Your task to perform on an android device: turn on airplane mode Image 0: 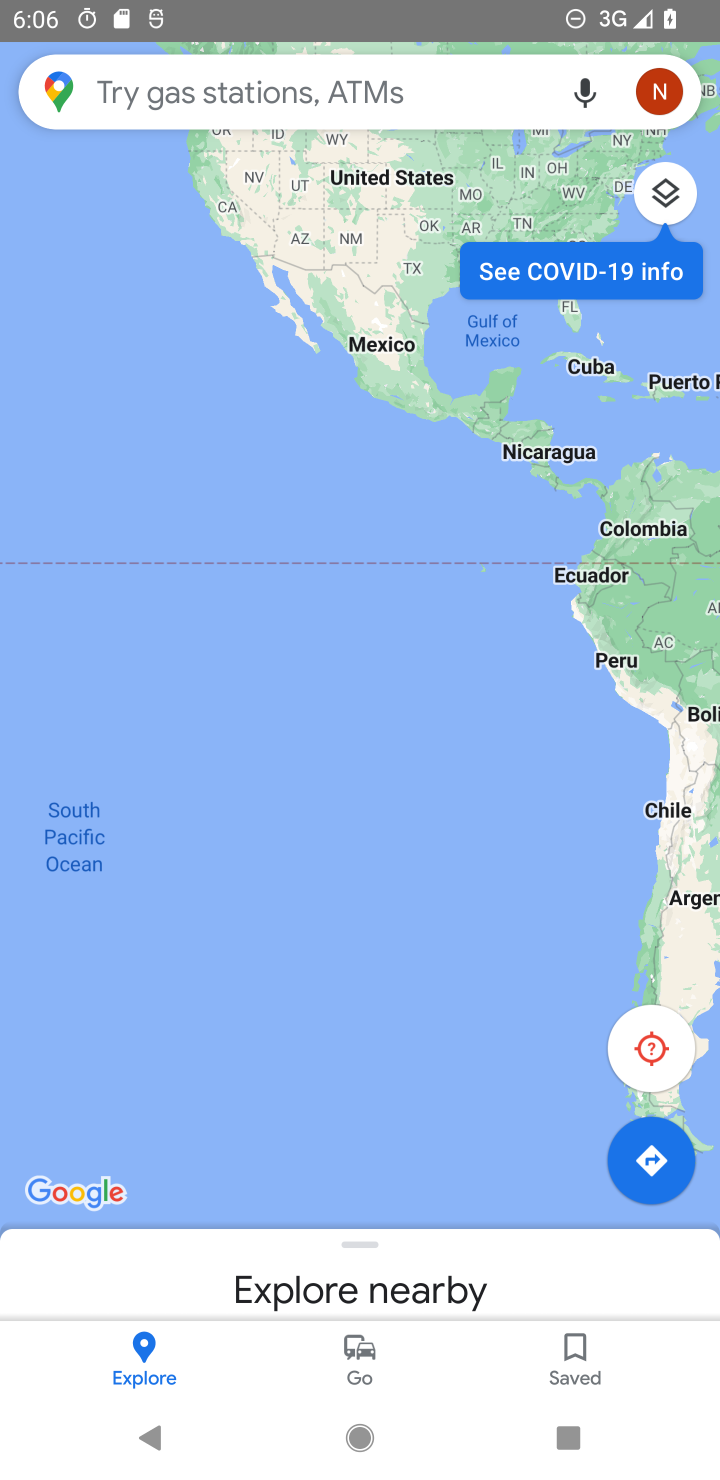
Step 0: drag from (421, 1174) to (563, 297)
Your task to perform on an android device: turn on airplane mode Image 1: 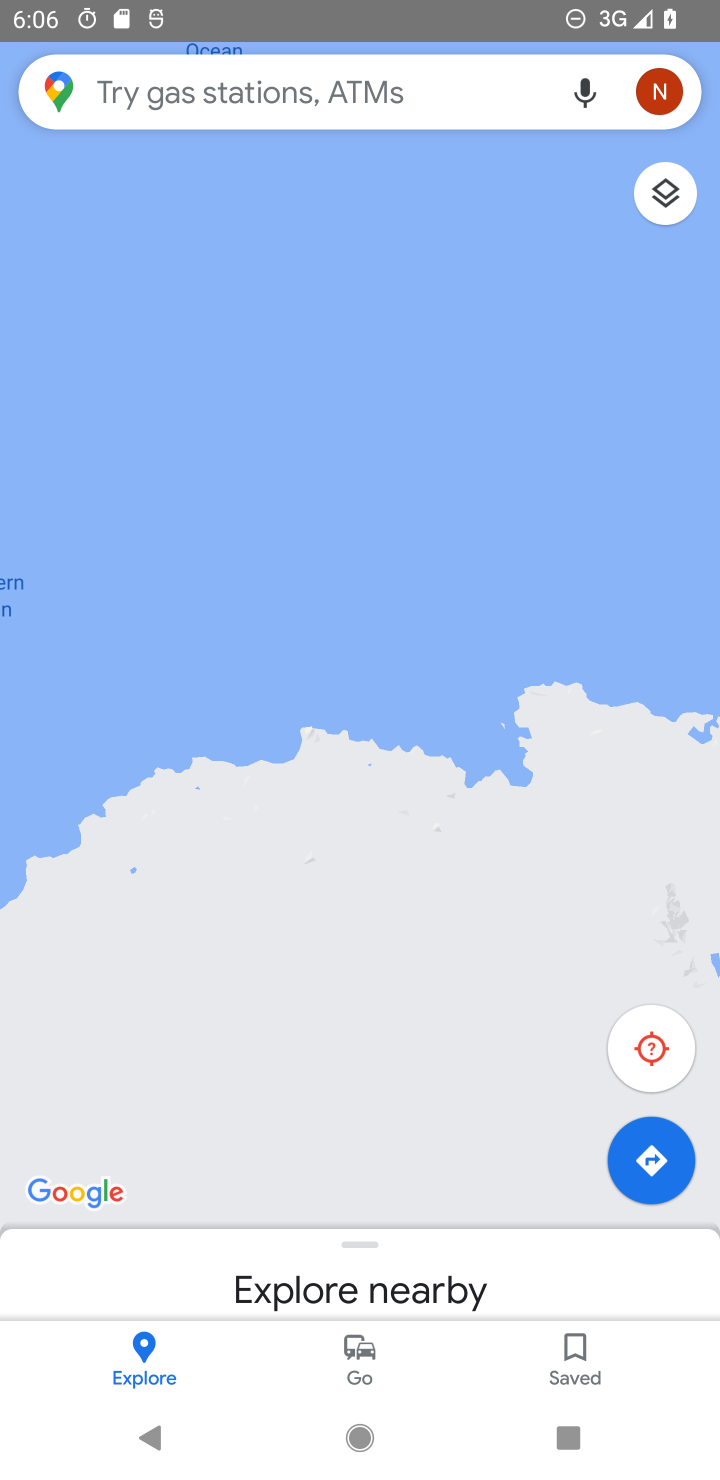
Step 1: press home button
Your task to perform on an android device: turn on airplane mode Image 2: 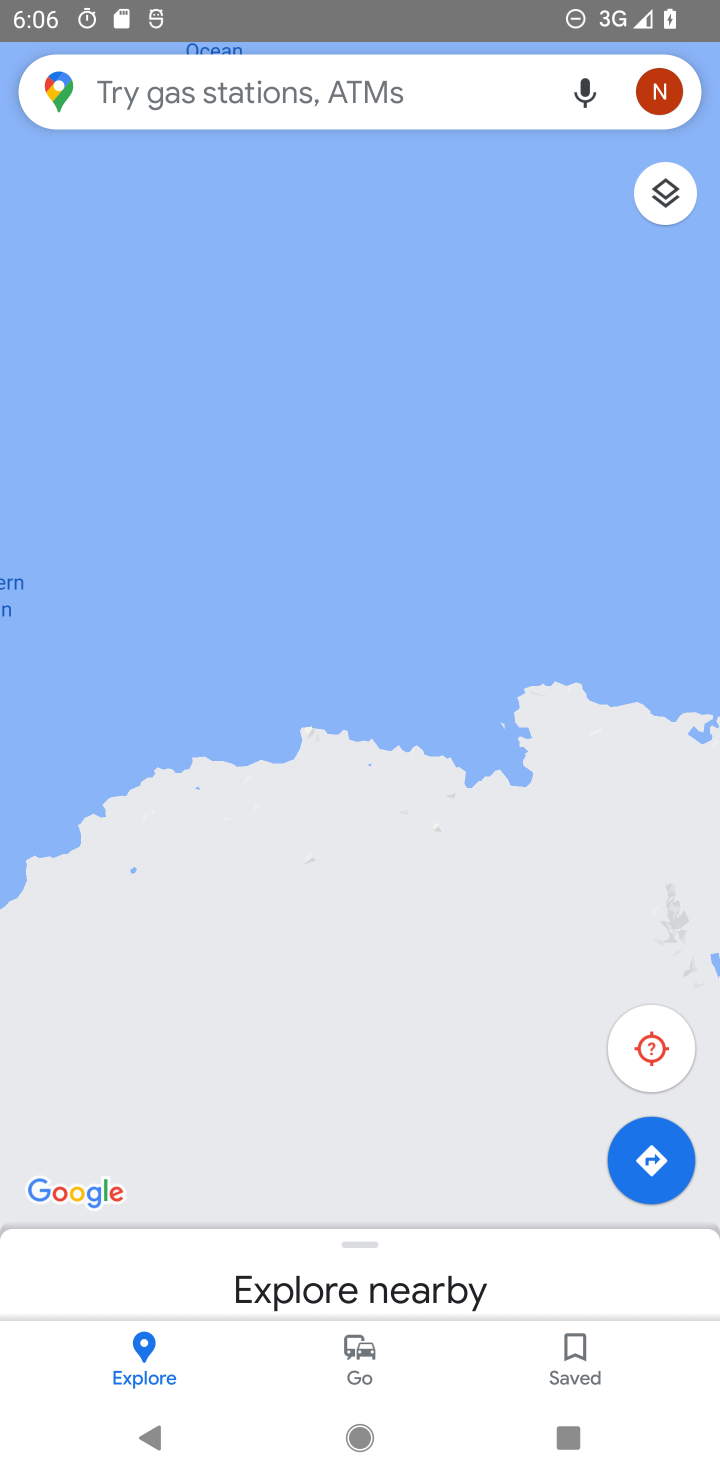
Step 2: drag from (459, 1101) to (558, 74)
Your task to perform on an android device: turn on airplane mode Image 3: 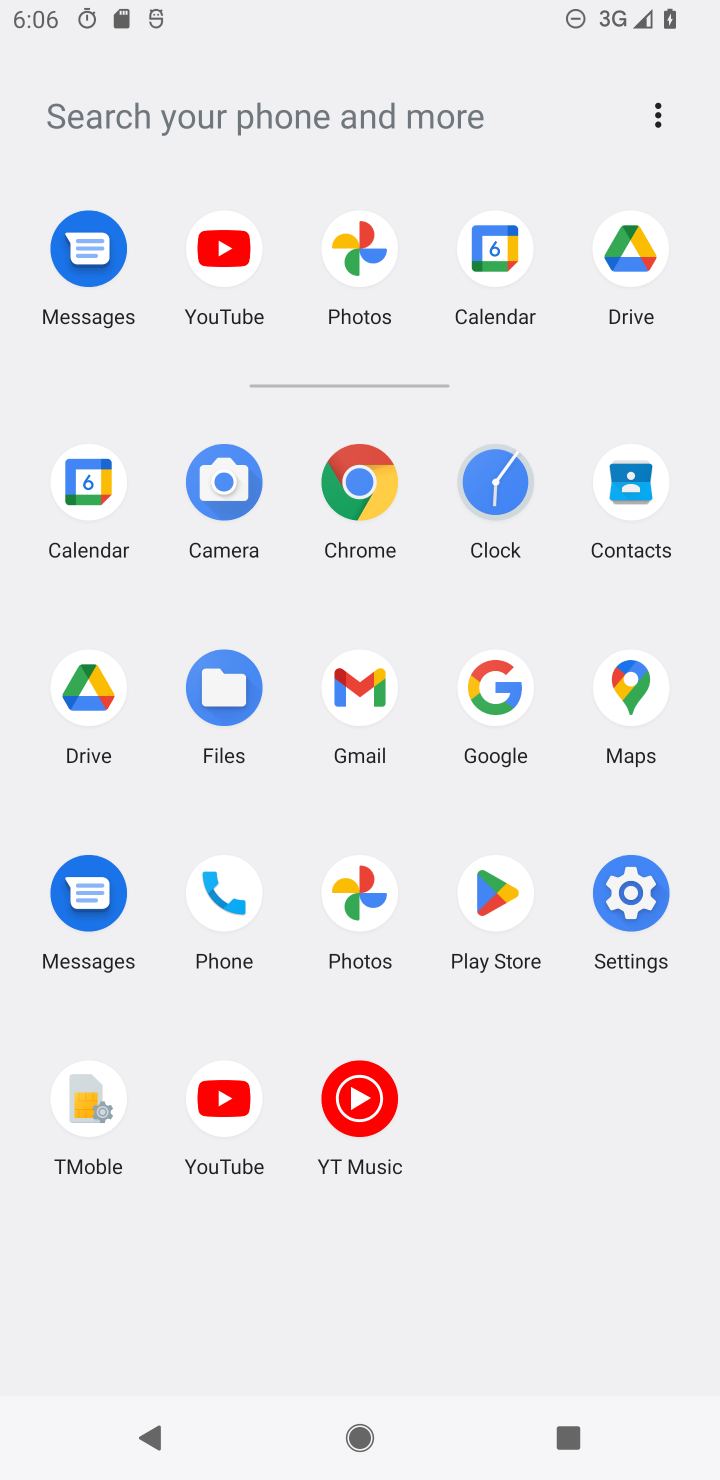
Step 3: click (302, 92)
Your task to perform on an android device: turn on airplane mode Image 4: 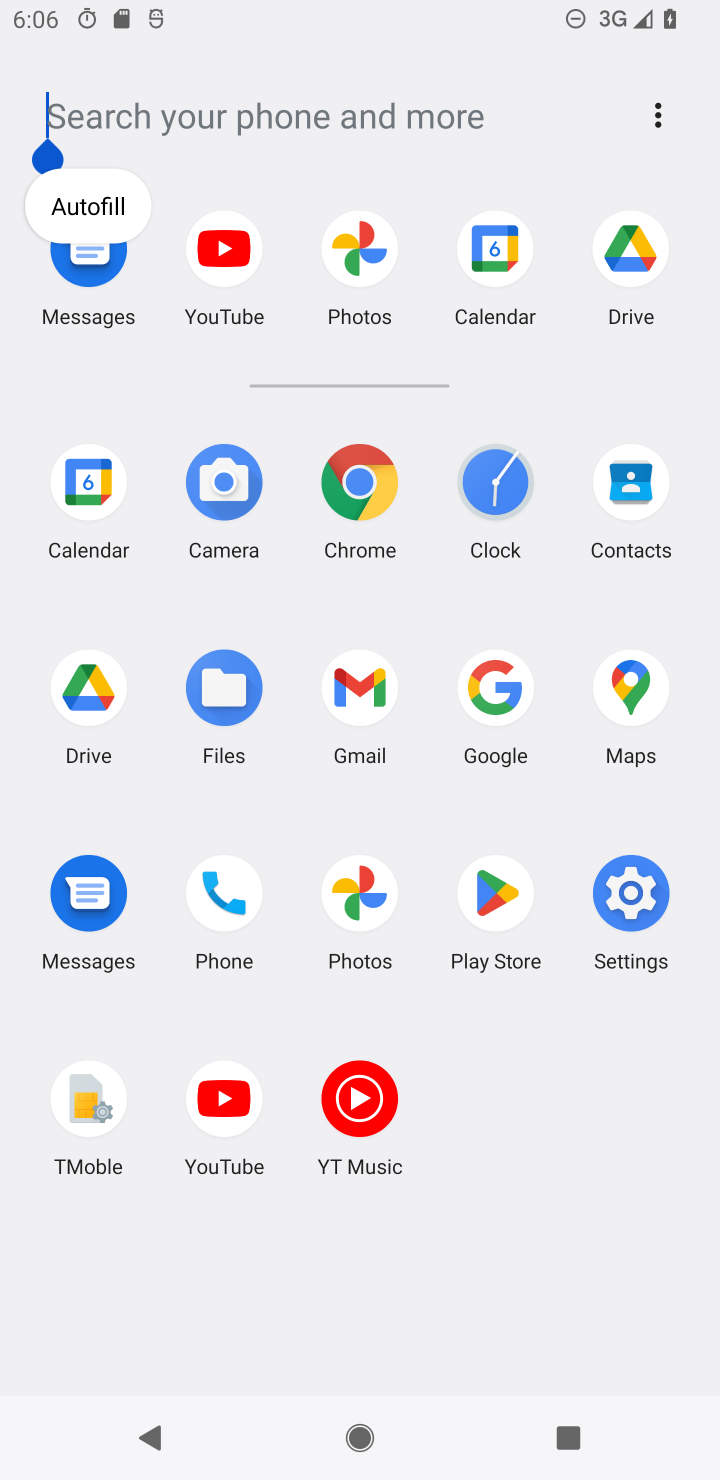
Step 4: click (667, 1472)
Your task to perform on an android device: turn on airplane mode Image 5: 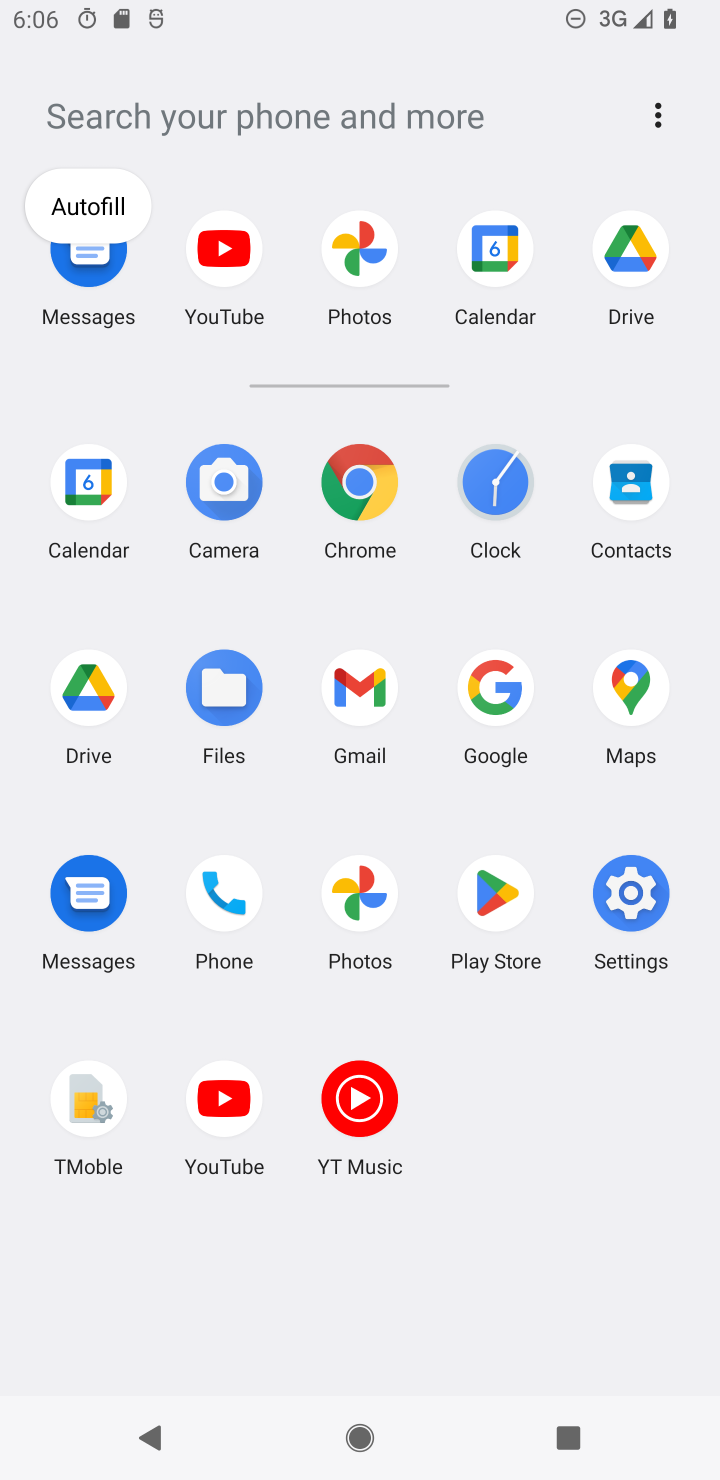
Step 5: type "airplane mode"
Your task to perform on an android device: turn on airplane mode Image 6: 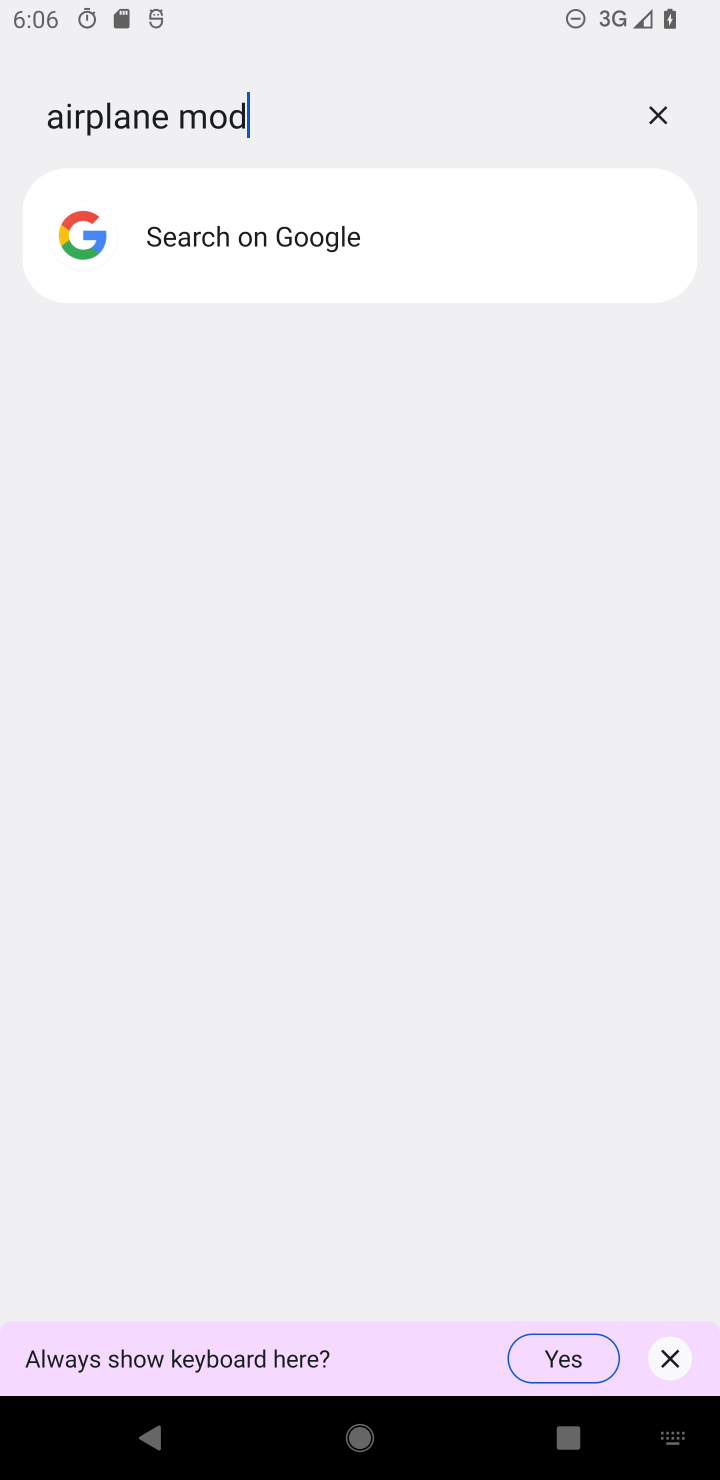
Step 6: type ""
Your task to perform on an android device: turn on airplane mode Image 7: 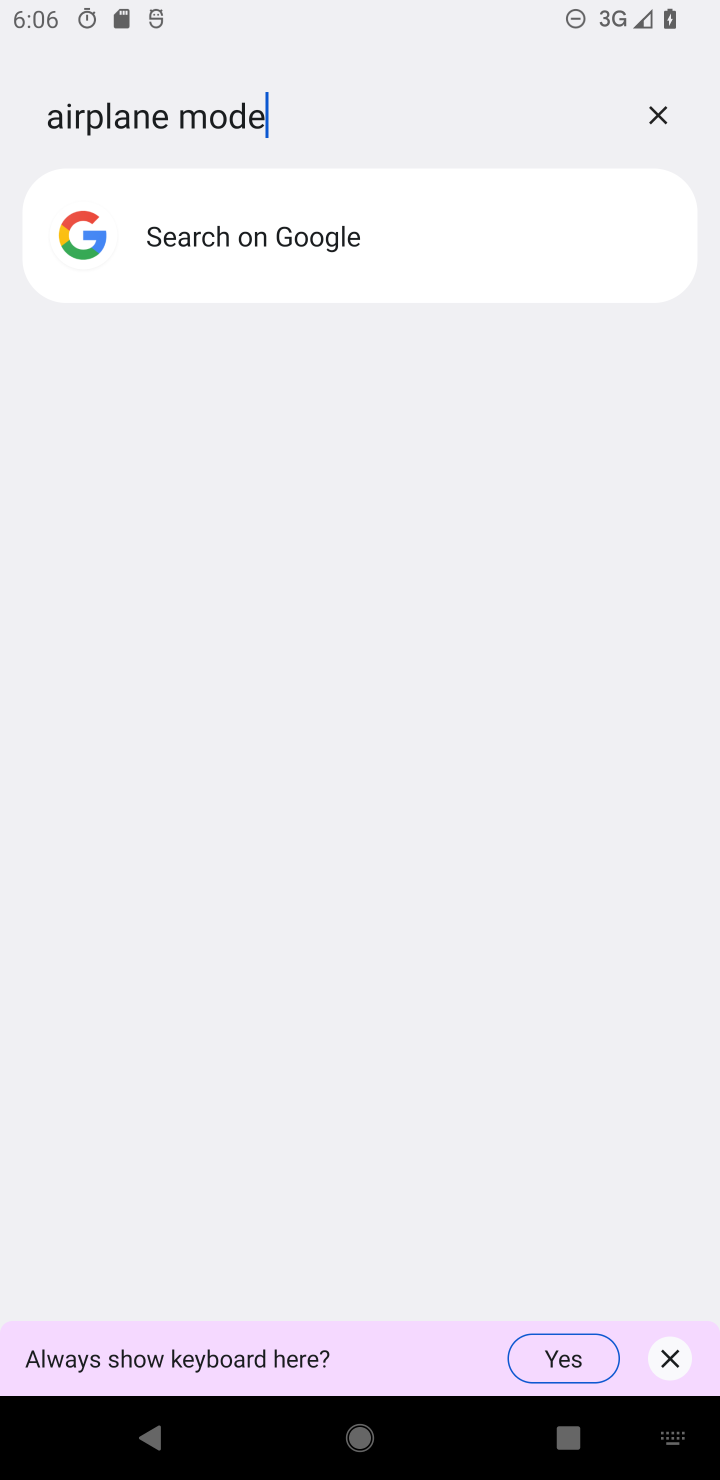
Step 7: click (657, 107)
Your task to perform on an android device: turn on airplane mode Image 8: 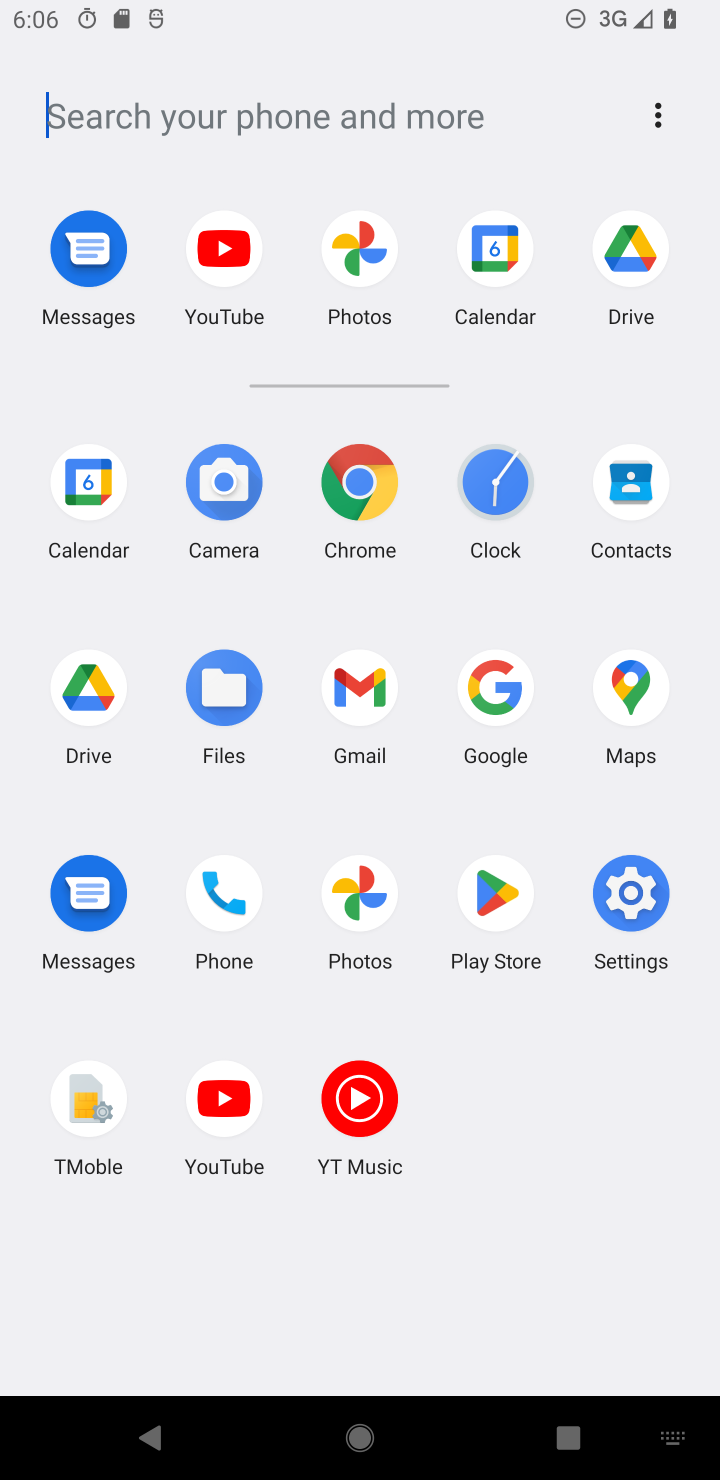
Step 8: press back button
Your task to perform on an android device: turn on airplane mode Image 9: 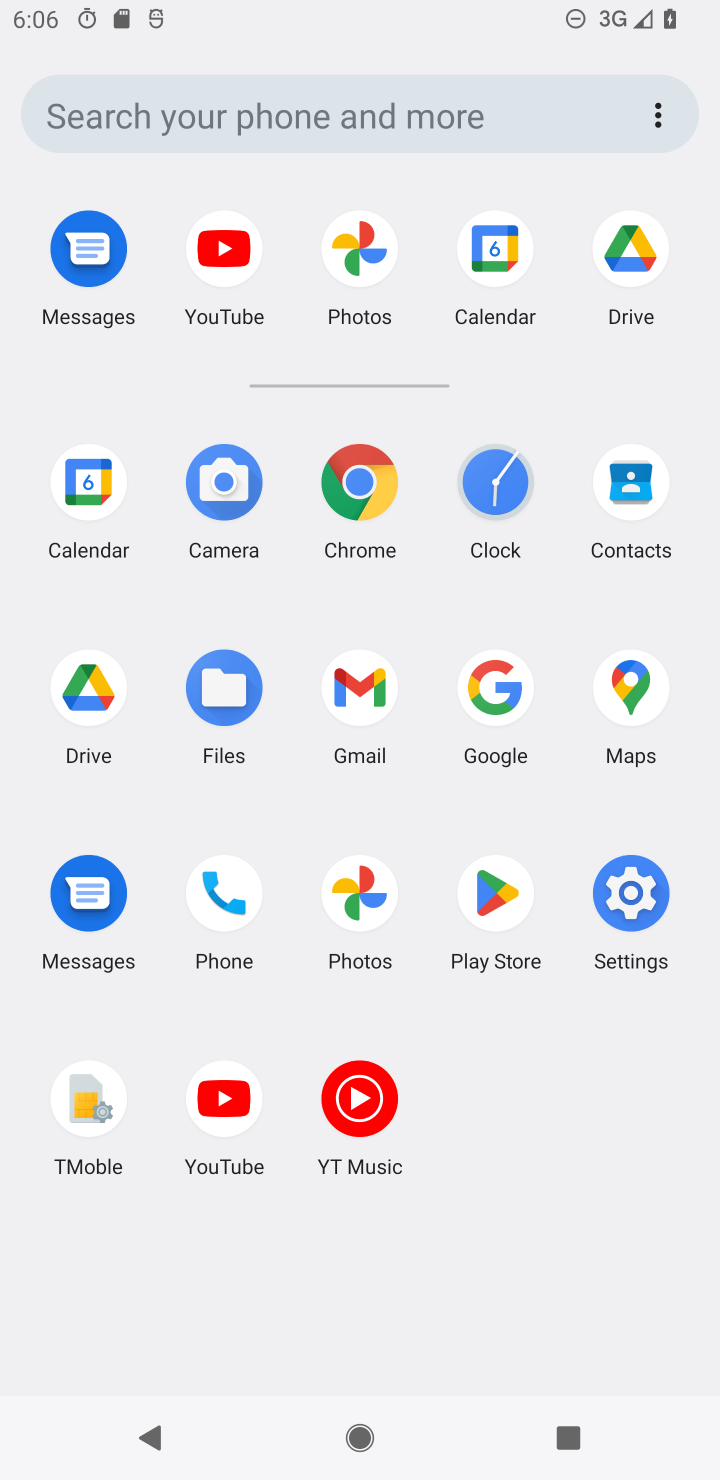
Step 9: click (642, 878)
Your task to perform on an android device: turn on airplane mode Image 10: 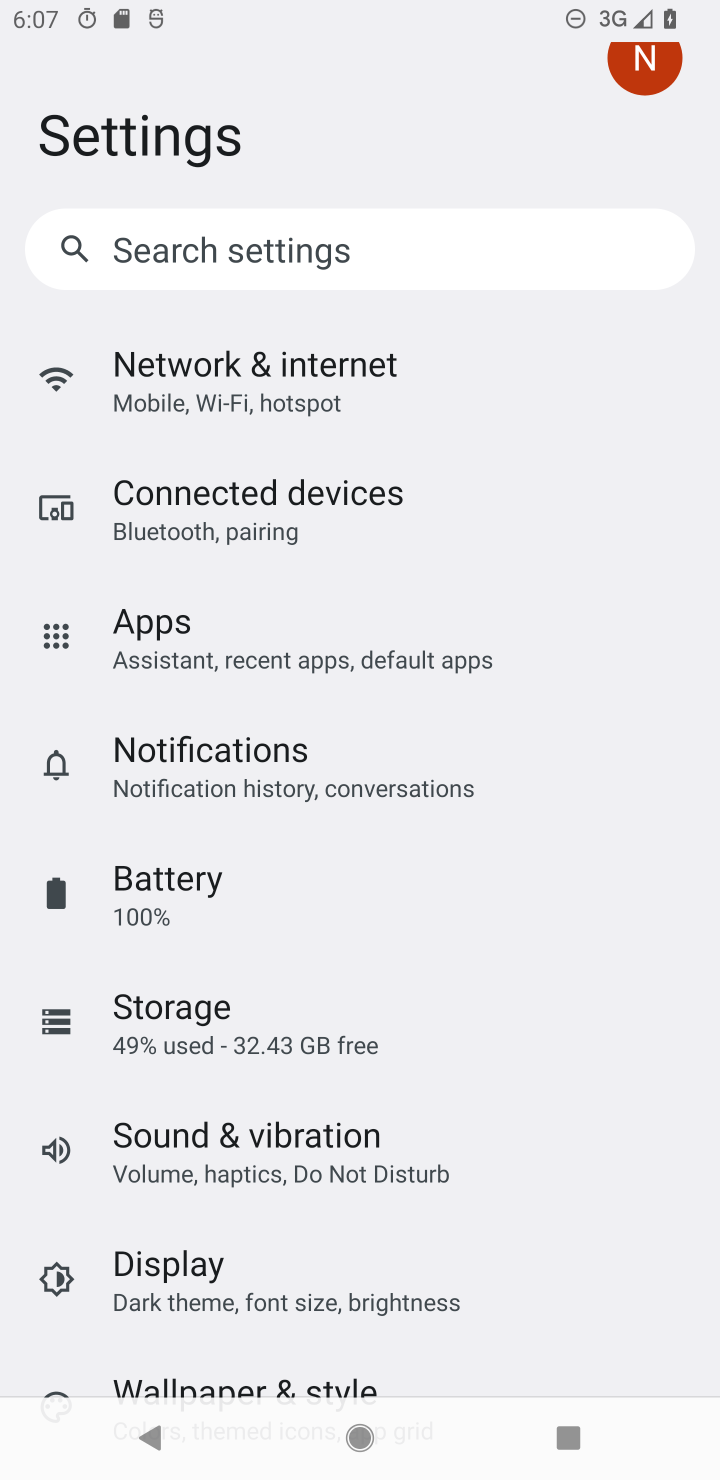
Step 10: click (279, 374)
Your task to perform on an android device: turn on airplane mode Image 11: 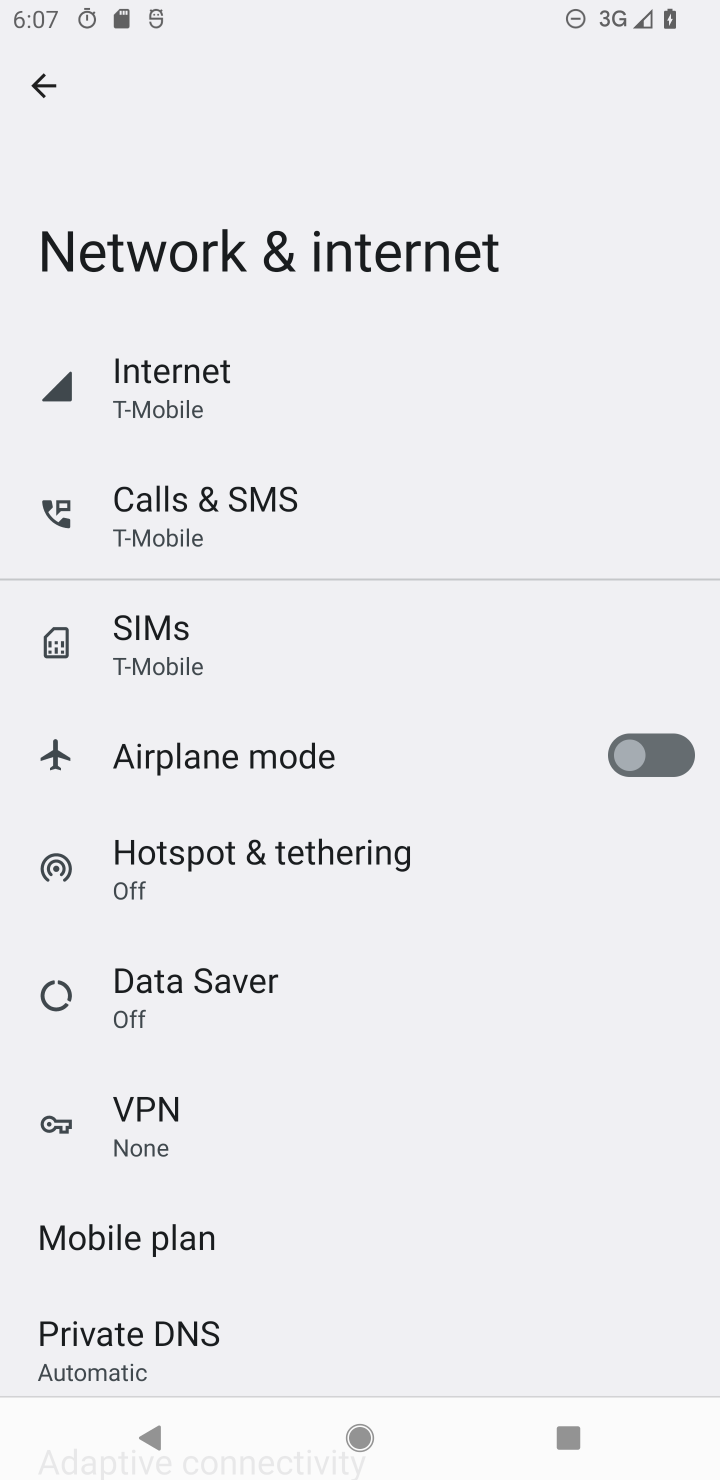
Step 11: drag from (213, 1149) to (409, 592)
Your task to perform on an android device: turn on airplane mode Image 12: 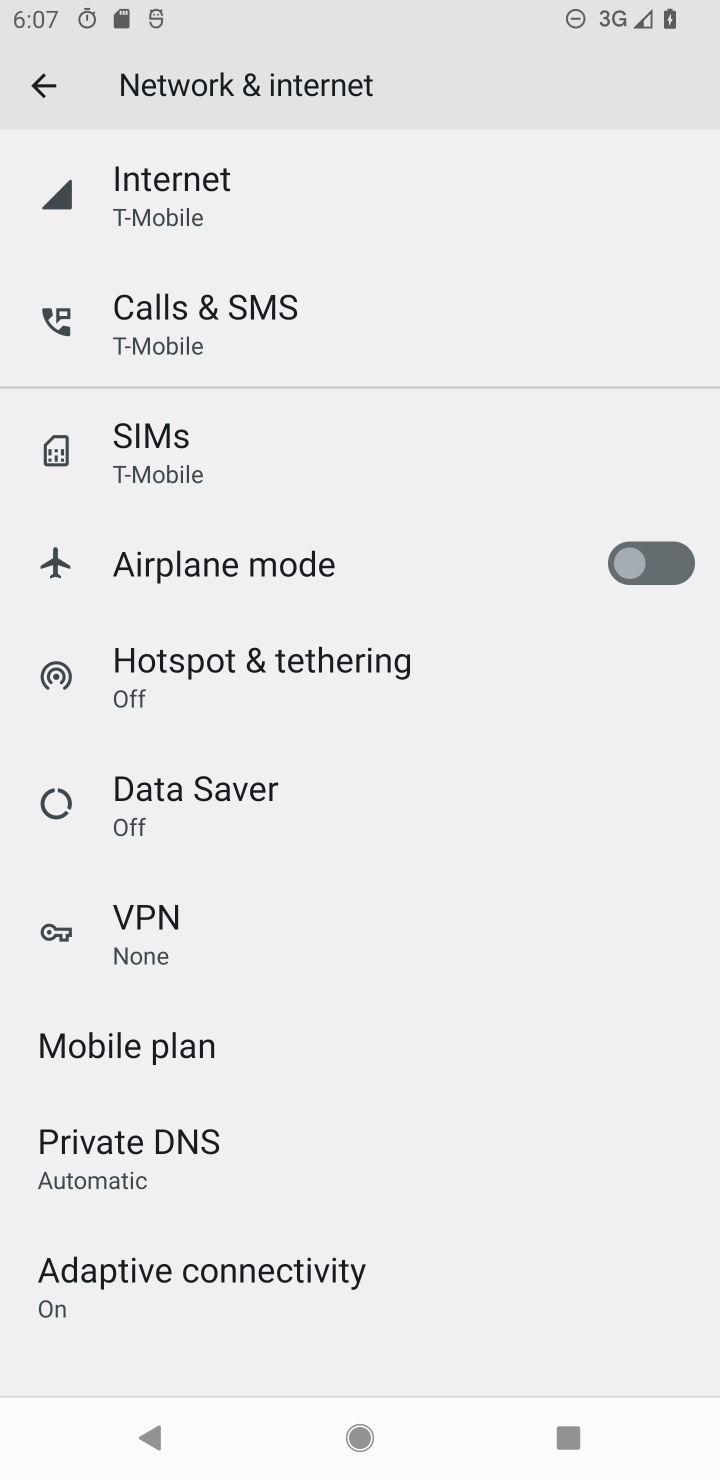
Step 12: click (592, 575)
Your task to perform on an android device: turn on airplane mode Image 13: 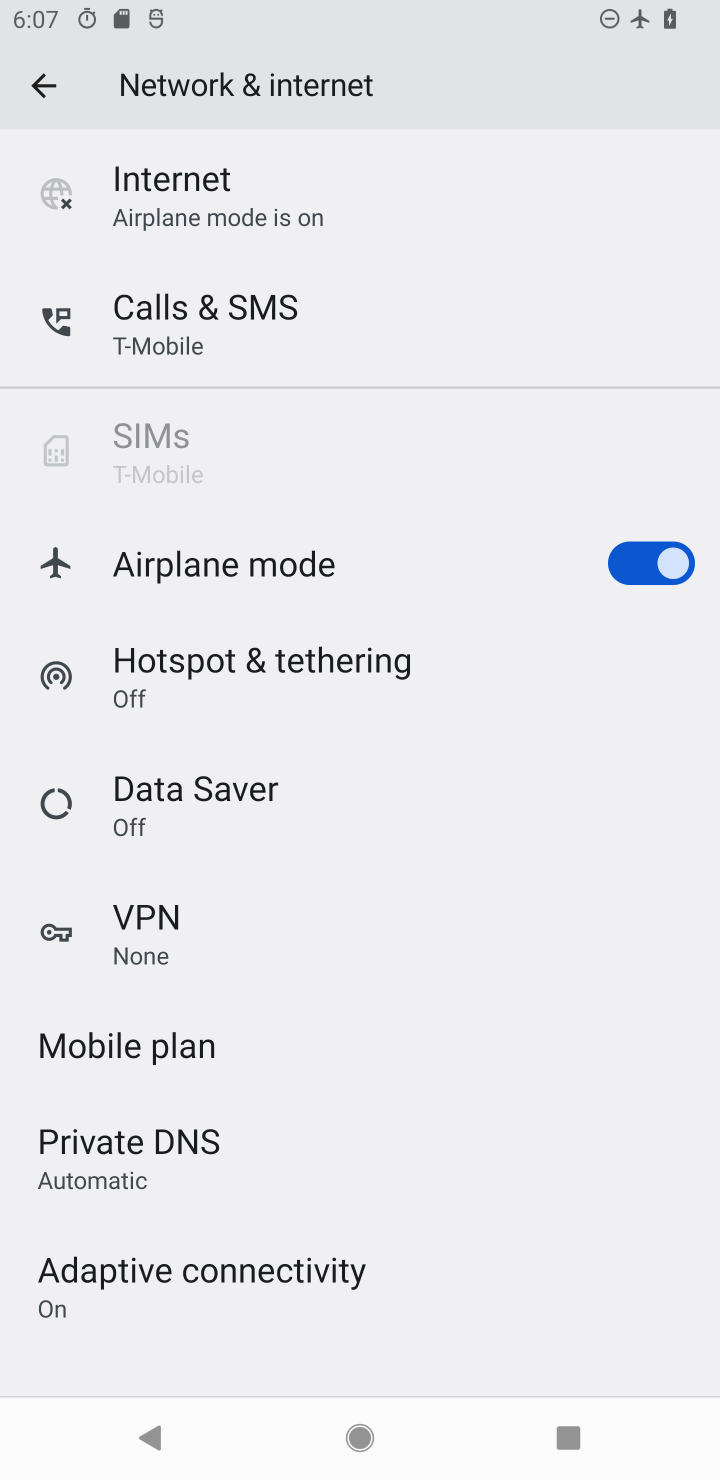
Step 13: task complete